Your task to perform on an android device: Open Google Chrome Image 0: 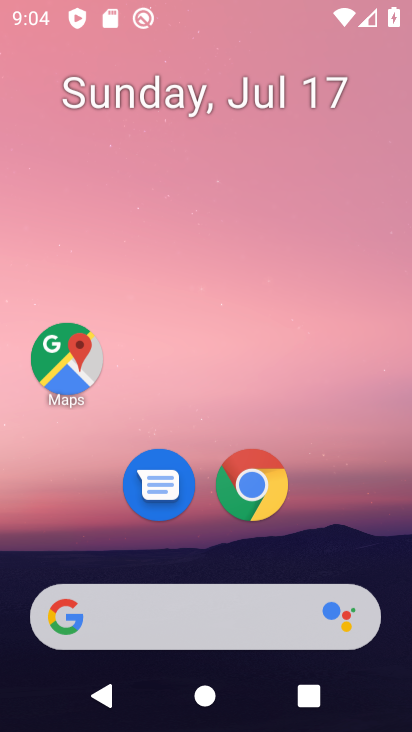
Step 0: press home button
Your task to perform on an android device: Open Google Chrome Image 1: 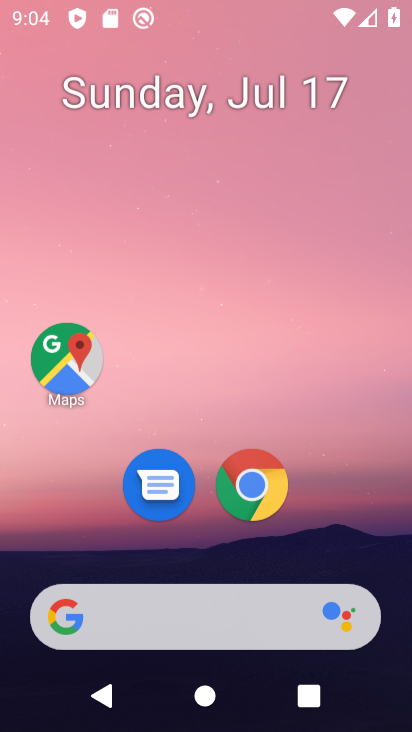
Step 1: drag from (410, 553) to (368, 26)
Your task to perform on an android device: Open Google Chrome Image 2: 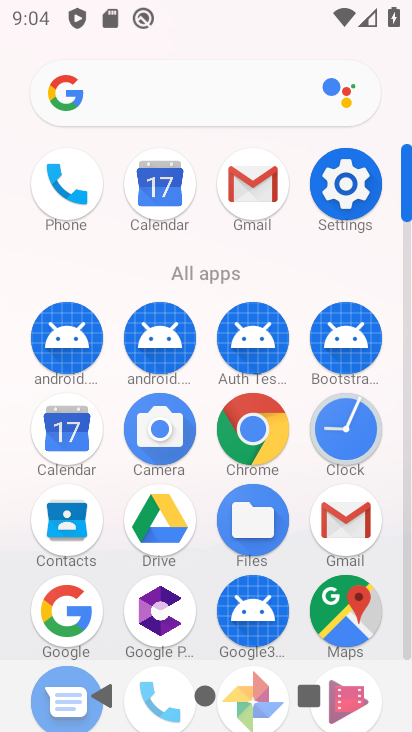
Step 2: click (260, 424)
Your task to perform on an android device: Open Google Chrome Image 3: 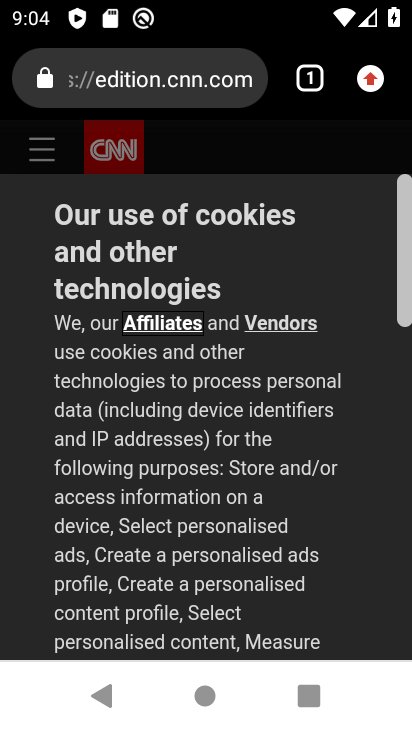
Step 3: task complete